Your task to perform on an android device: open device folders in google photos Image 0: 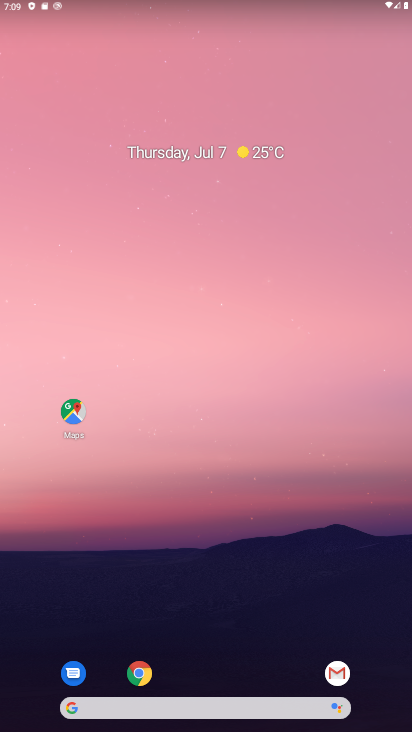
Step 0: drag from (236, 699) to (258, 198)
Your task to perform on an android device: open device folders in google photos Image 1: 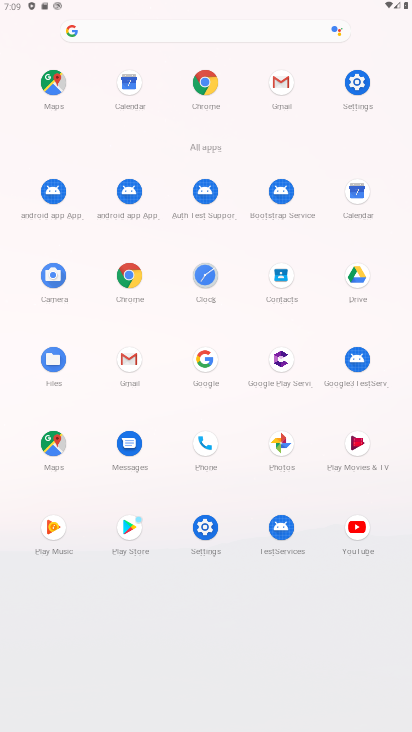
Step 1: click (286, 437)
Your task to perform on an android device: open device folders in google photos Image 2: 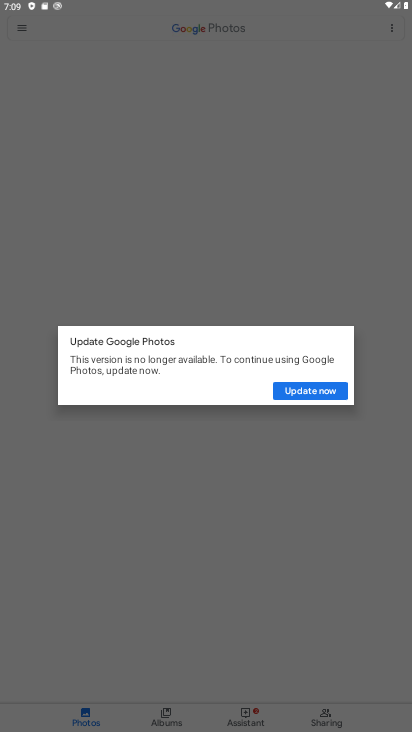
Step 2: click (292, 382)
Your task to perform on an android device: open device folders in google photos Image 3: 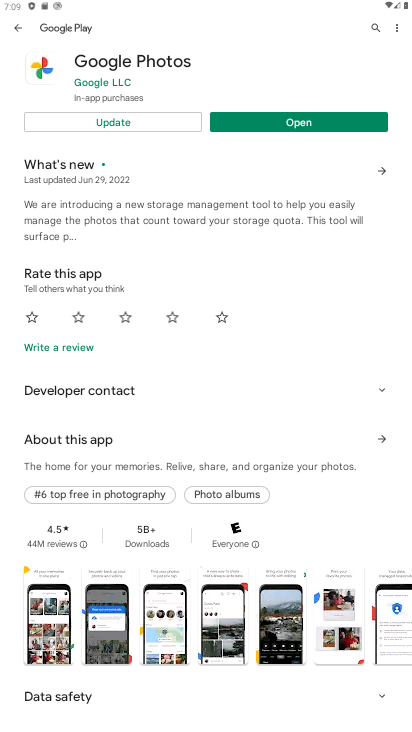
Step 3: click (275, 118)
Your task to perform on an android device: open device folders in google photos Image 4: 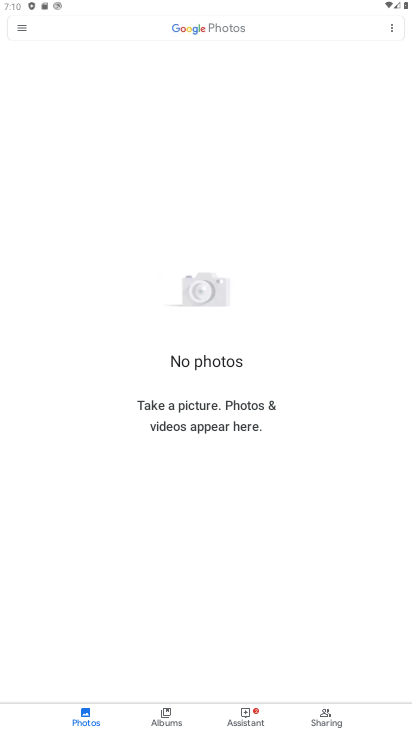
Step 4: click (15, 29)
Your task to perform on an android device: open device folders in google photos Image 5: 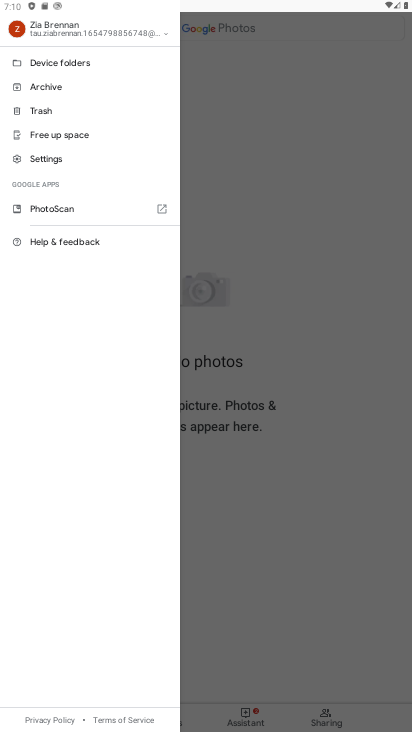
Step 5: click (45, 64)
Your task to perform on an android device: open device folders in google photos Image 6: 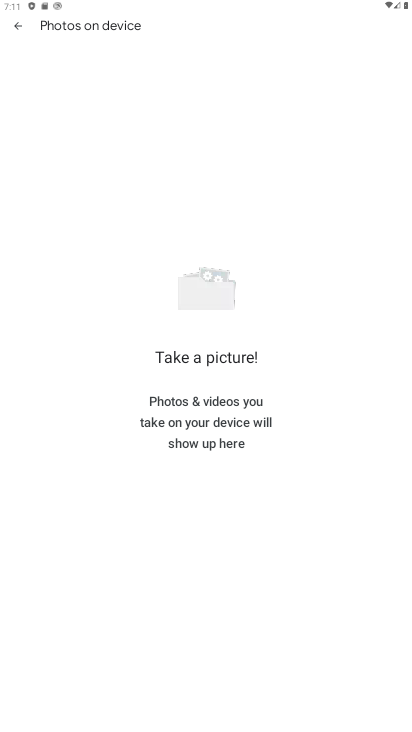
Step 6: task complete